Your task to perform on an android device: Open Wikipedia Image 0: 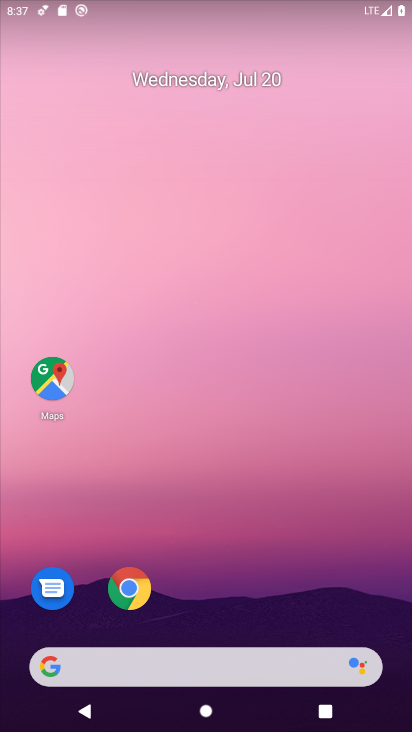
Step 0: press home button
Your task to perform on an android device: Open Wikipedia Image 1: 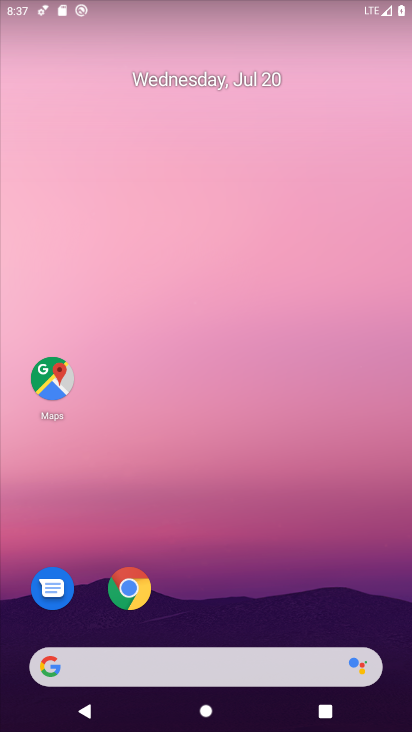
Step 1: click (126, 582)
Your task to perform on an android device: Open Wikipedia Image 2: 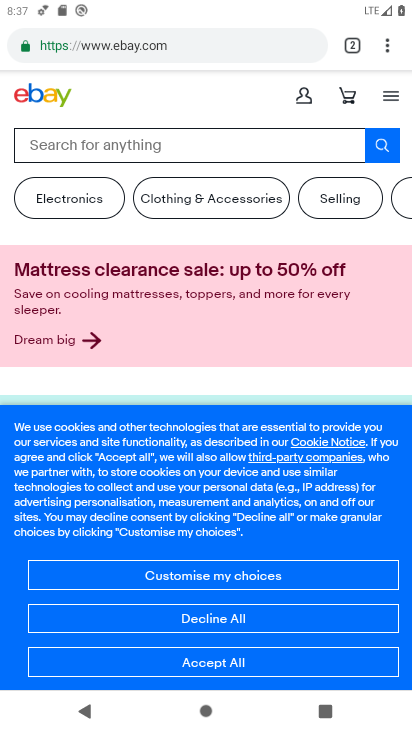
Step 2: click (352, 42)
Your task to perform on an android device: Open Wikipedia Image 3: 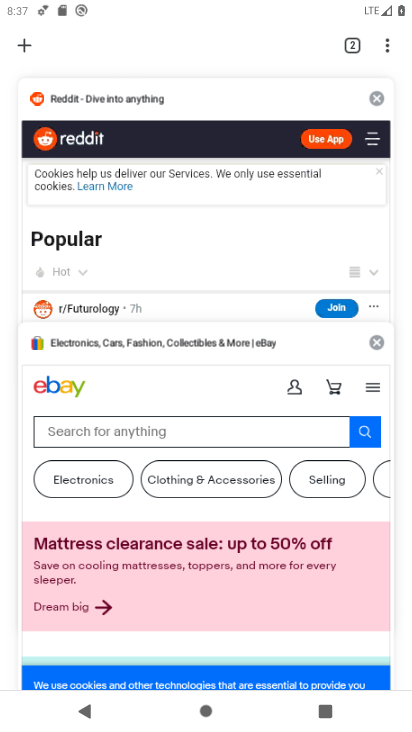
Step 3: click (21, 48)
Your task to perform on an android device: Open Wikipedia Image 4: 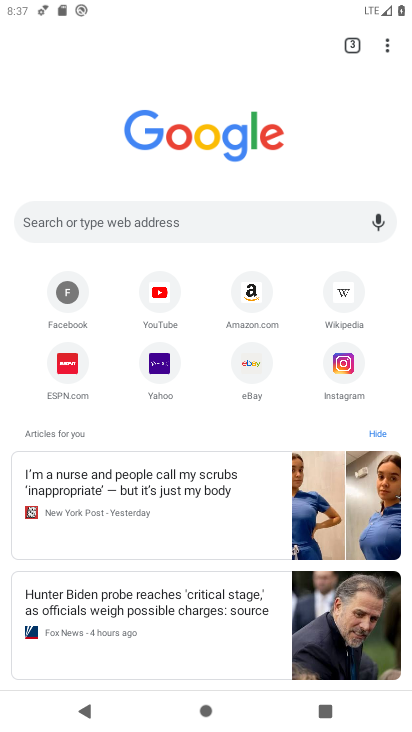
Step 4: click (342, 291)
Your task to perform on an android device: Open Wikipedia Image 5: 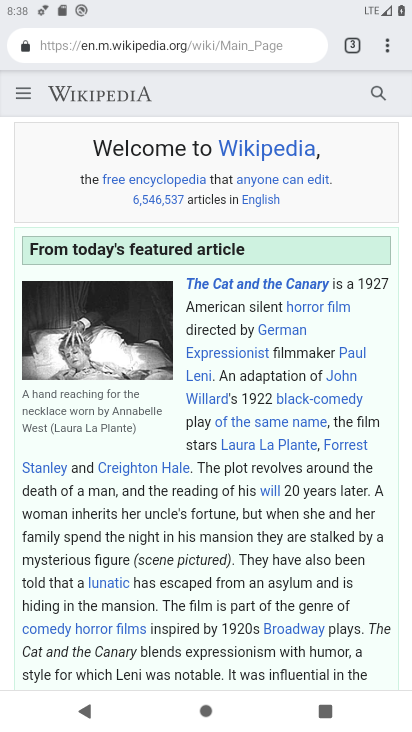
Step 5: task complete